Your task to perform on an android device: Open Wikipedia Image 0: 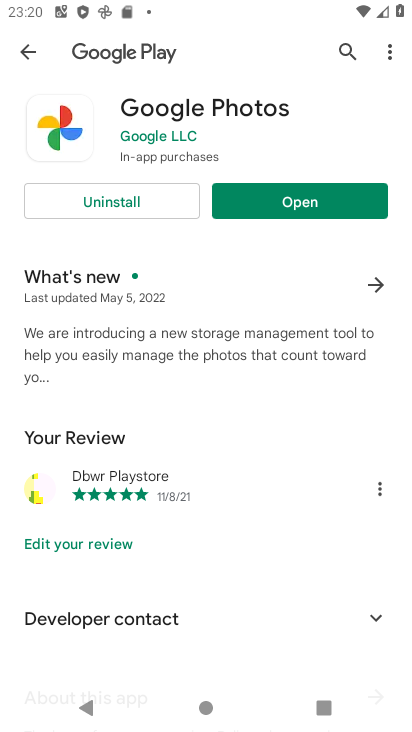
Step 0: press home button
Your task to perform on an android device: Open Wikipedia Image 1: 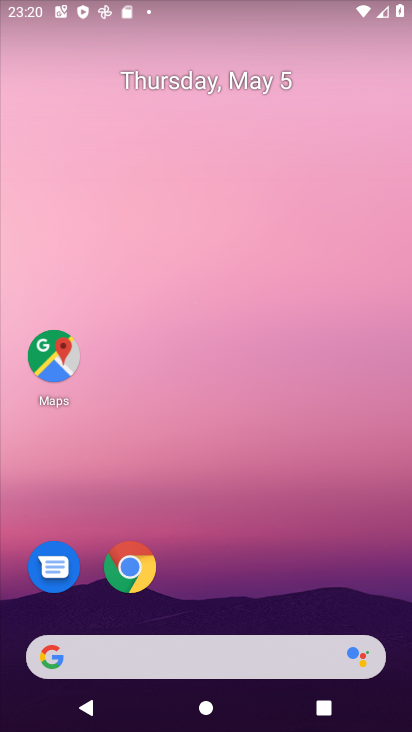
Step 1: click (129, 571)
Your task to perform on an android device: Open Wikipedia Image 2: 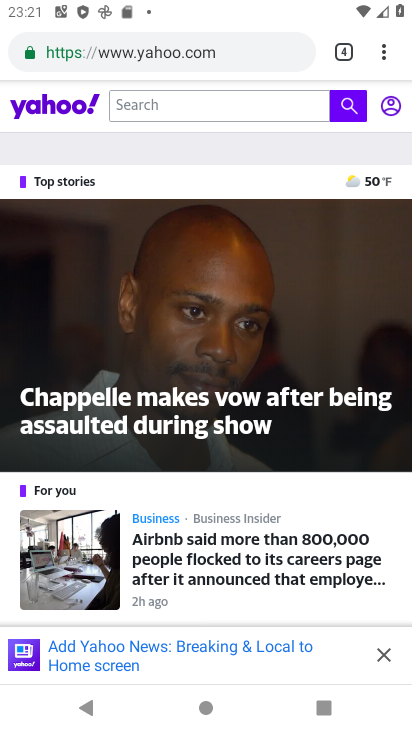
Step 2: click (336, 47)
Your task to perform on an android device: Open Wikipedia Image 3: 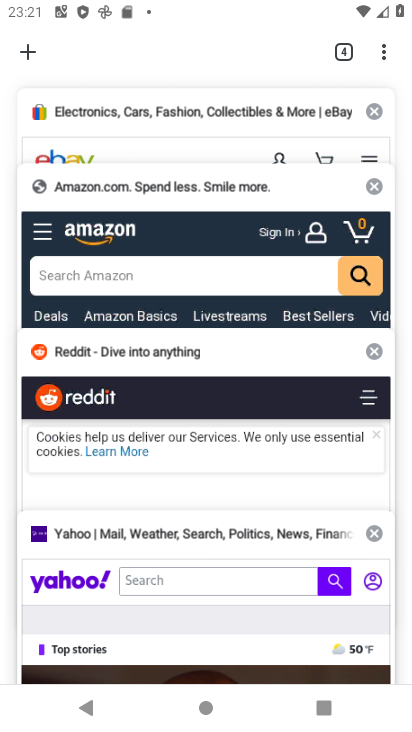
Step 3: click (31, 51)
Your task to perform on an android device: Open Wikipedia Image 4: 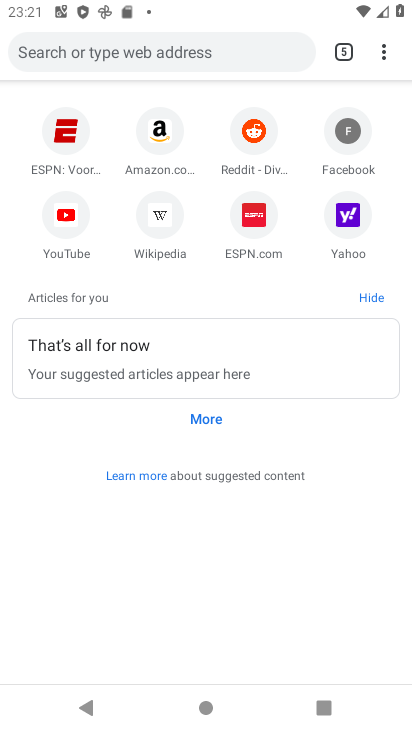
Step 4: click (169, 60)
Your task to perform on an android device: Open Wikipedia Image 5: 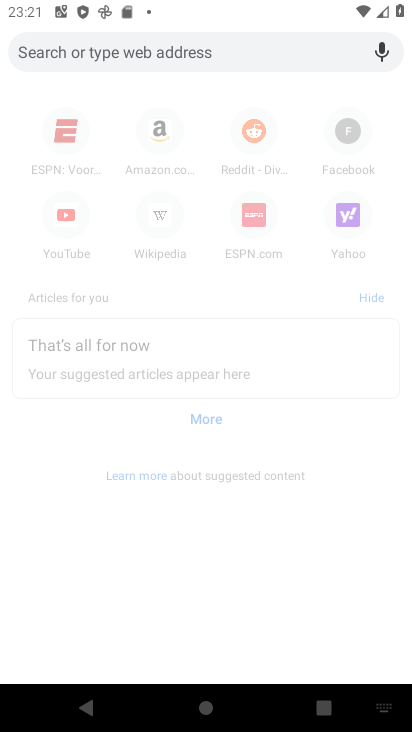
Step 5: type "Wikipedia"
Your task to perform on an android device: Open Wikipedia Image 6: 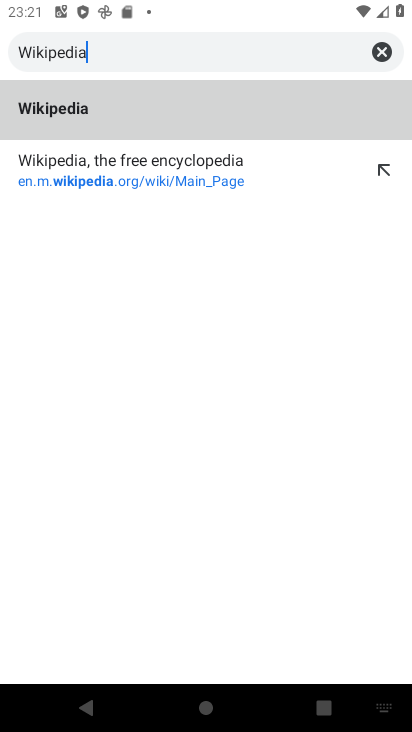
Step 6: click (53, 107)
Your task to perform on an android device: Open Wikipedia Image 7: 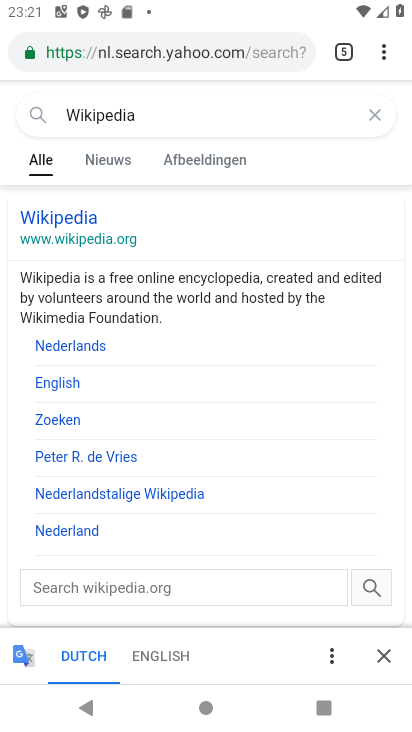
Step 7: click (35, 217)
Your task to perform on an android device: Open Wikipedia Image 8: 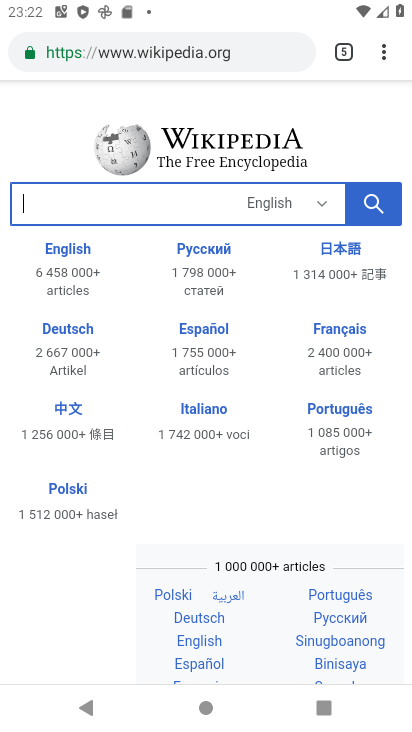
Step 8: task complete